Your task to perform on an android device: change notification settings in the gmail app Image 0: 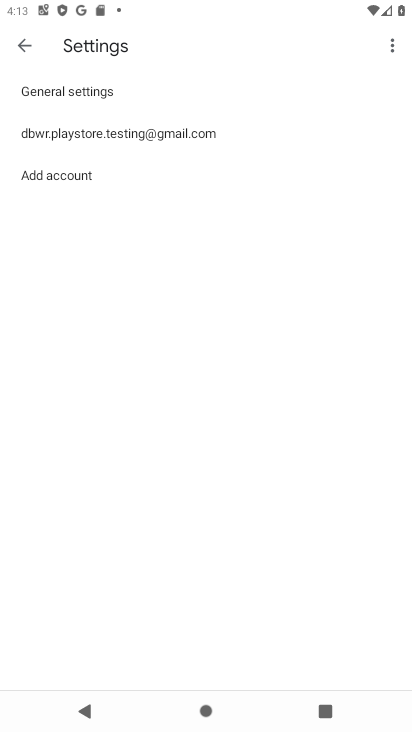
Step 0: press home button
Your task to perform on an android device: change notification settings in the gmail app Image 1: 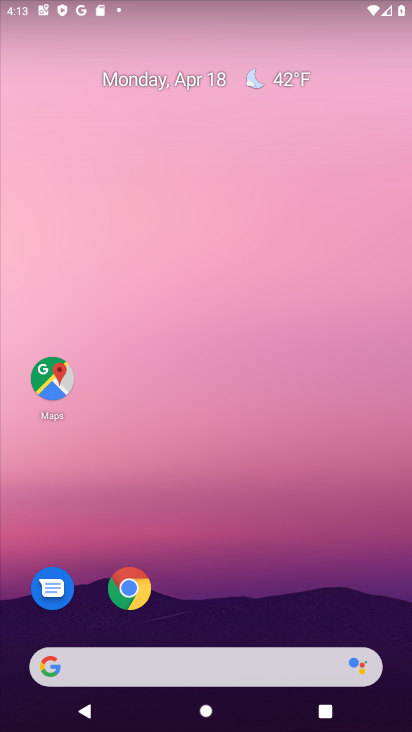
Step 1: drag from (266, 609) to (285, 108)
Your task to perform on an android device: change notification settings in the gmail app Image 2: 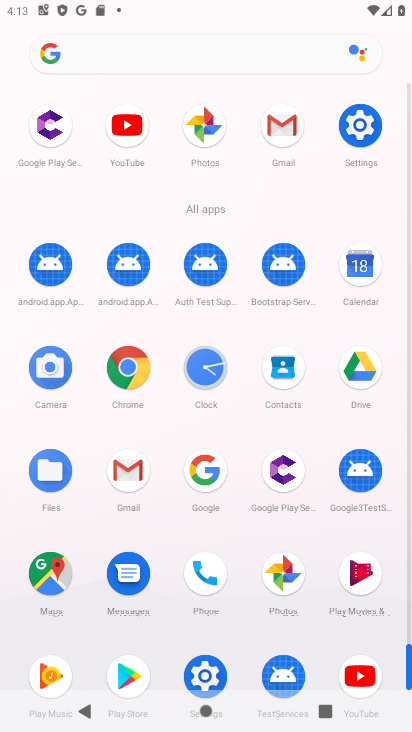
Step 2: click (278, 130)
Your task to perform on an android device: change notification settings in the gmail app Image 3: 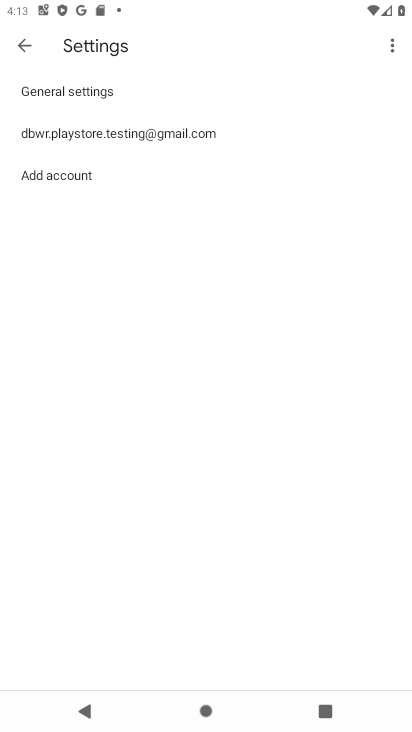
Step 3: click (170, 133)
Your task to perform on an android device: change notification settings in the gmail app Image 4: 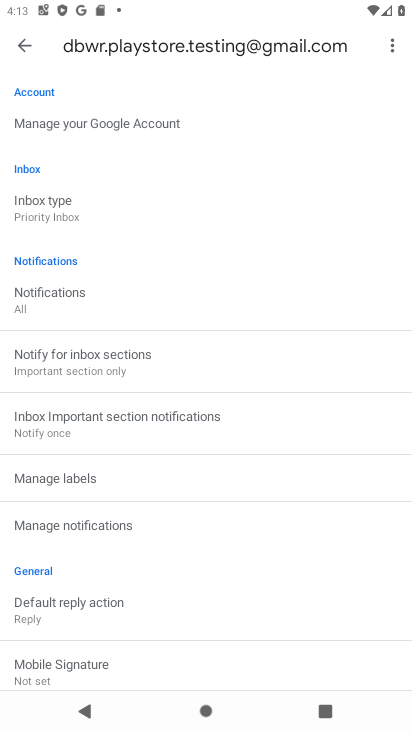
Step 4: click (45, 311)
Your task to perform on an android device: change notification settings in the gmail app Image 5: 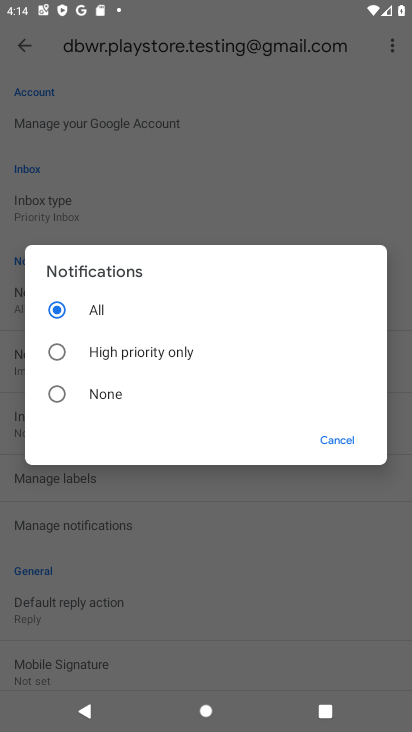
Step 5: click (114, 355)
Your task to perform on an android device: change notification settings in the gmail app Image 6: 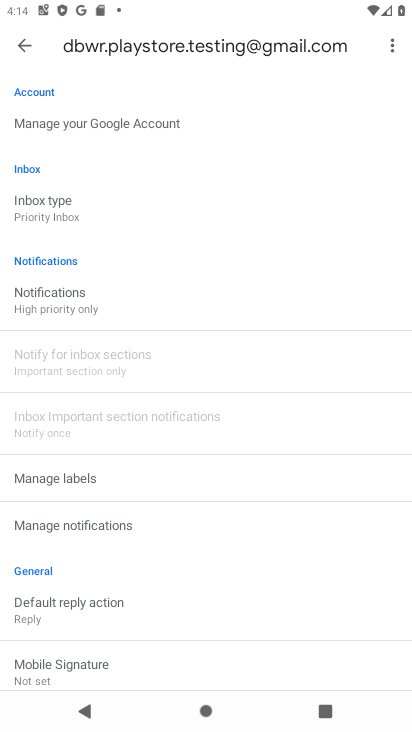
Step 6: click (86, 307)
Your task to perform on an android device: change notification settings in the gmail app Image 7: 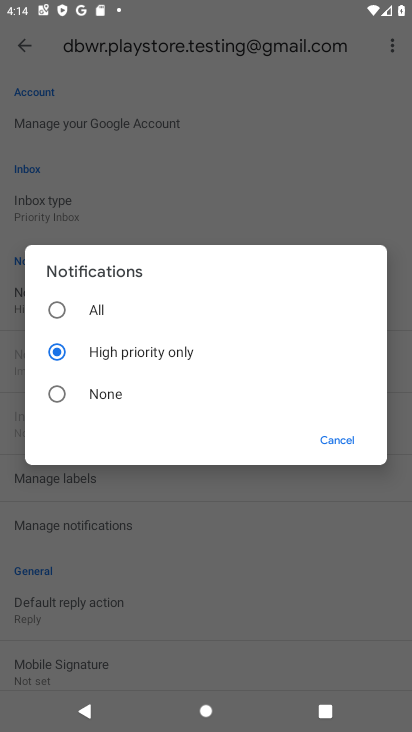
Step 7: click (104, 320)
Your task to perform on an android device: change notification settings in the gmail app Image 8: 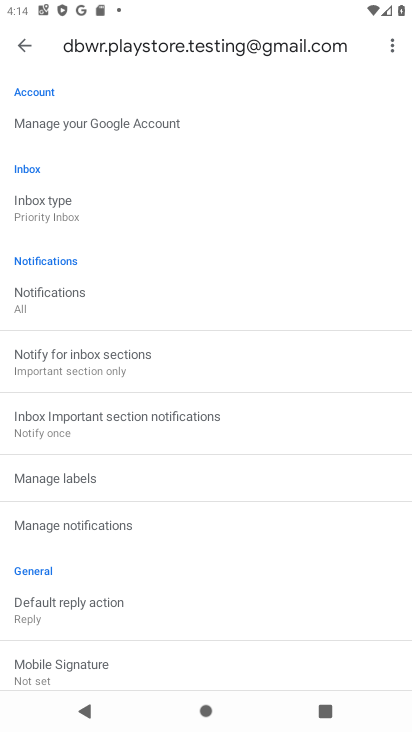
Step 8: task complete